Your task to perform on an android device: open chrome and create a bookmark for the current page Image 0: 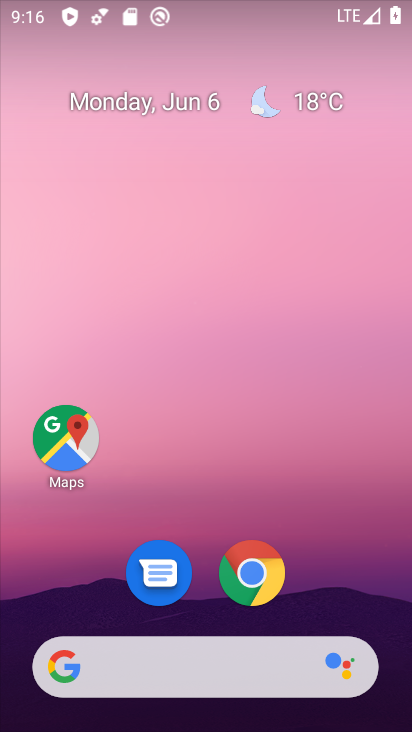
Step 0: click (261, 570)
Your task to perform on an android device: open chrome and create a bookmark for the current page Image 1: 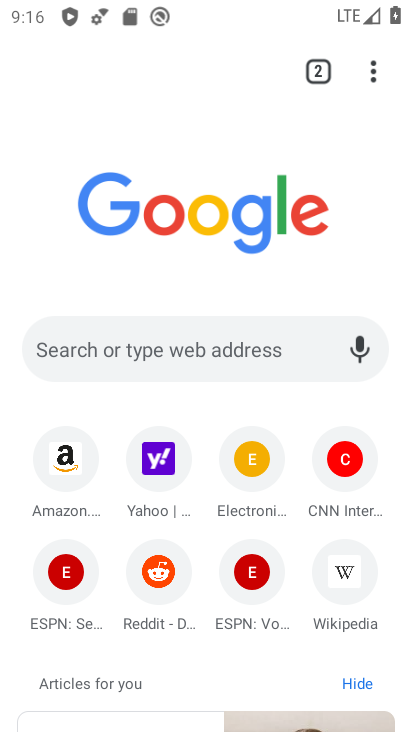
Step 1: drag from (376, 66) to (85, 274)
Your task to perform on an android device: open chrome and create a bookmark for the current page Image 2: 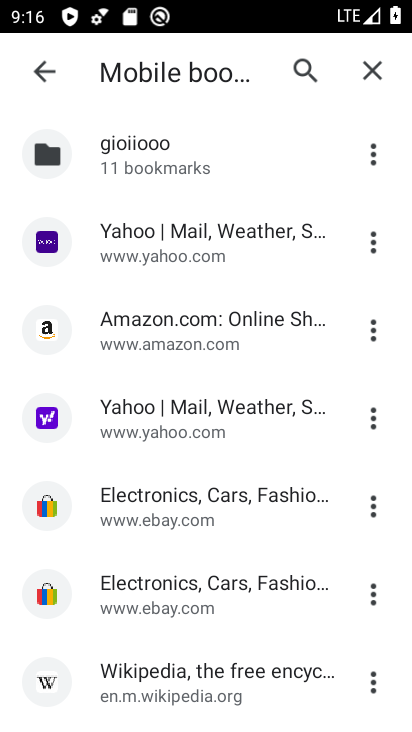
Step 2: click (39, 64)
Your task to perform on an android device: open chrome and create a bookmark for the current page Image 3: 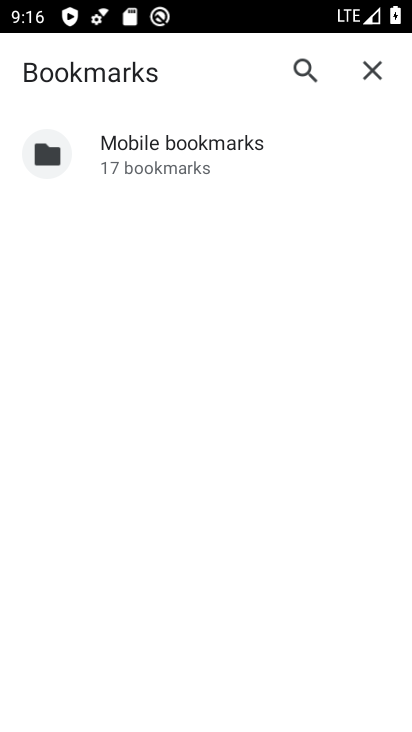
Step 3: click (363, 72)
Your task to perform on an android device: open chrome and create a bookmark for the current page Image 4: 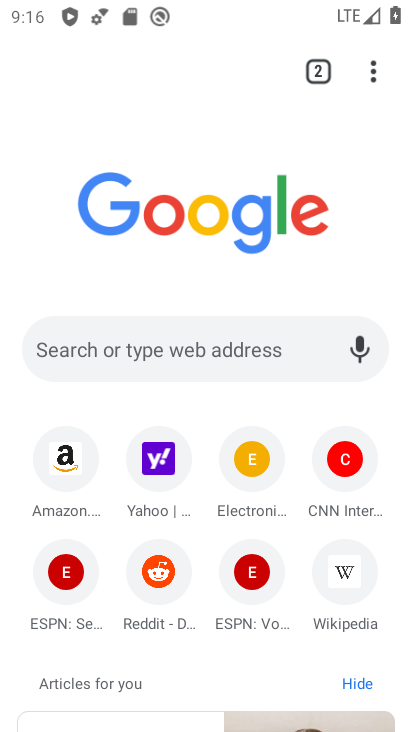
Step 4: task complete